Your task to perform on an android device: Show me productivity apps on the Play Store Image 0: 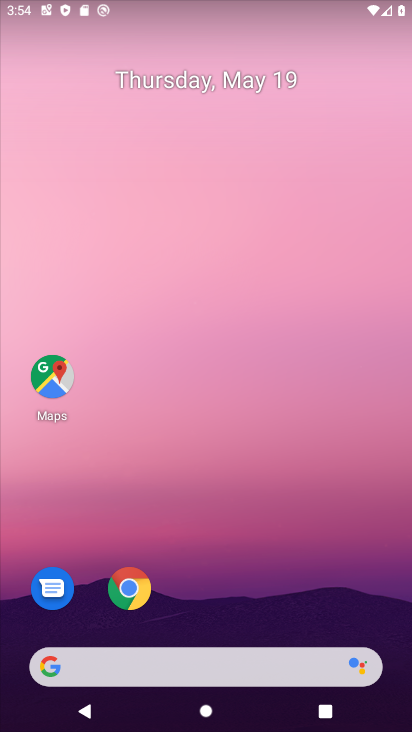
Step 0: drag from (176, 625) to (360, 24)
Your task to perform on an android device: Show me productivity apps on the Play Store Image 1: 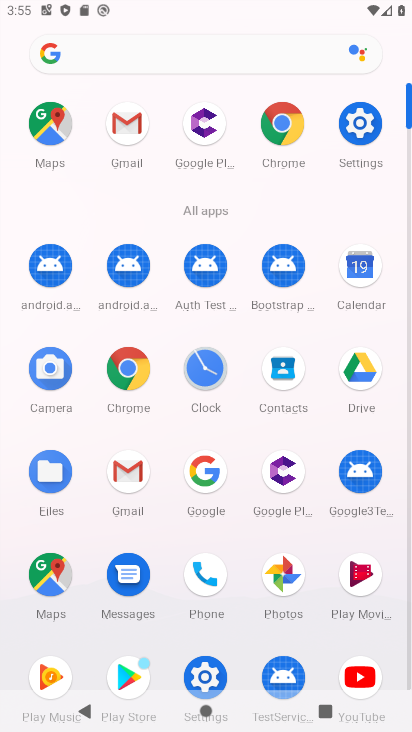
Step 1: click (114, 671)
Your task to perform on an android device: Show me productivity apps on the Play Store Image 2: 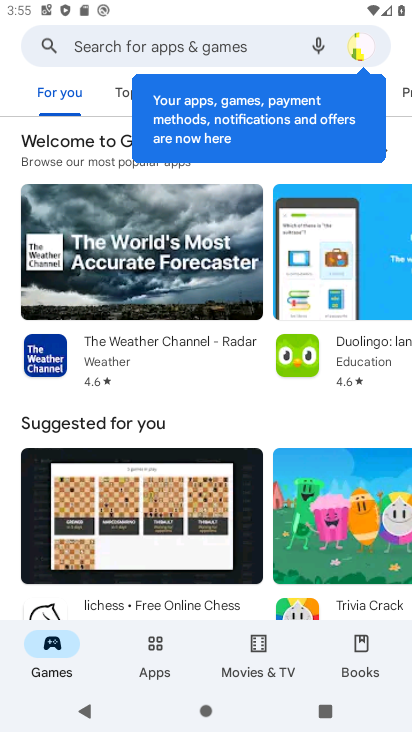
Step 2: click (161, 651)
Your task to perform on an android device: Show me productivity apps on the Play Store Image 3: 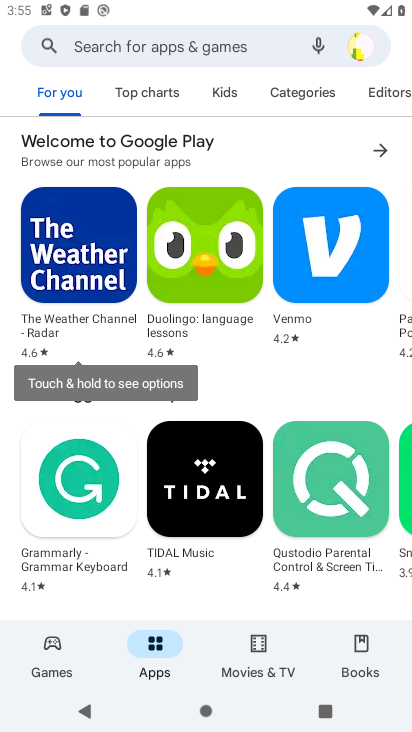
Step 3: click (301, 107)
Your task to perform on an android device: Show me productivity apps on the Play Store Image 4: 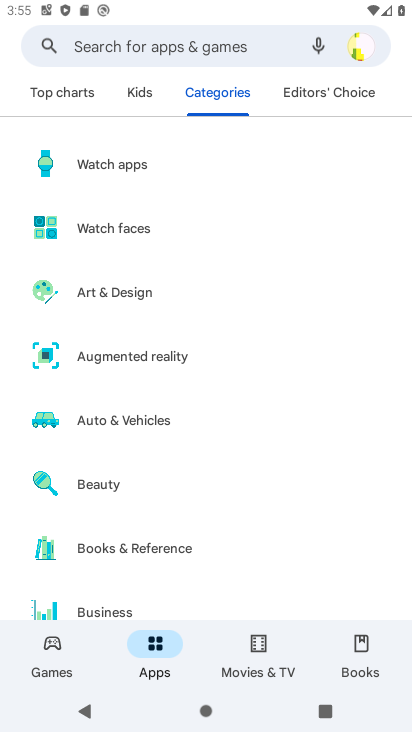
Step 4: drag from (109, 584) to (120, 237)
Your task to perform on an android device: Show me productivity apps on the Play Store Image 5: 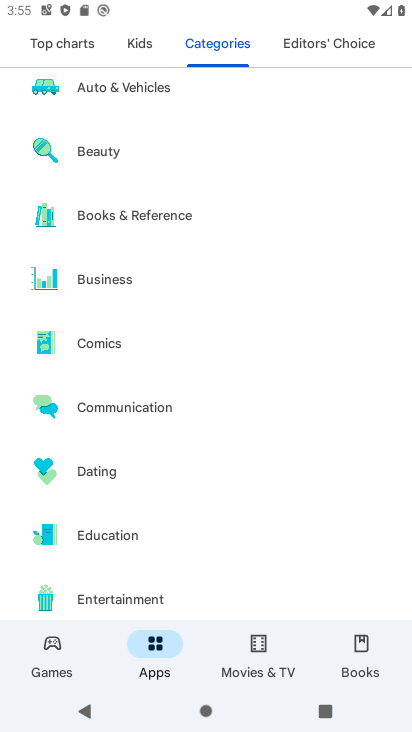
Step 5: drag from (116, 560) to (239, 125)
Your task to perform on an android device: Show me productivity apps on the Play Store Image 6: 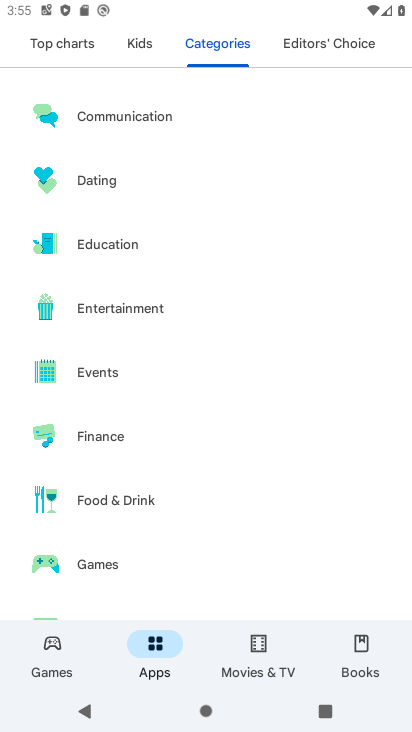
Step 6: drag from (123, 598) to (288, 110)
Your task to perform on an android device: Show me productivity apps on the Play Store Image 7: 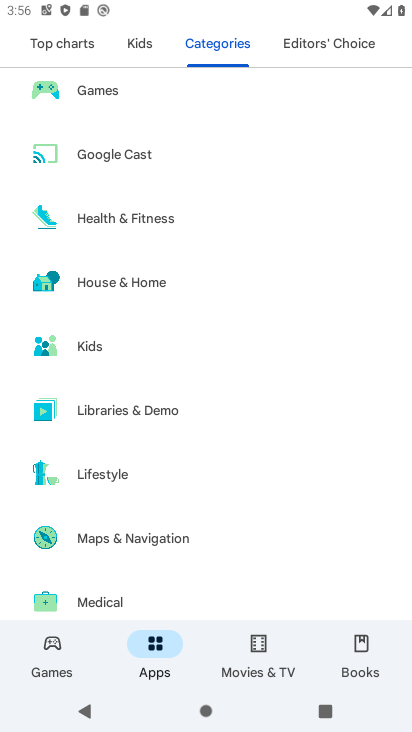
Step 7: drag from (90, 582) to (288, 3)
Your task to perform on an android device: Show me productivity apps on the Play Store Image 8: 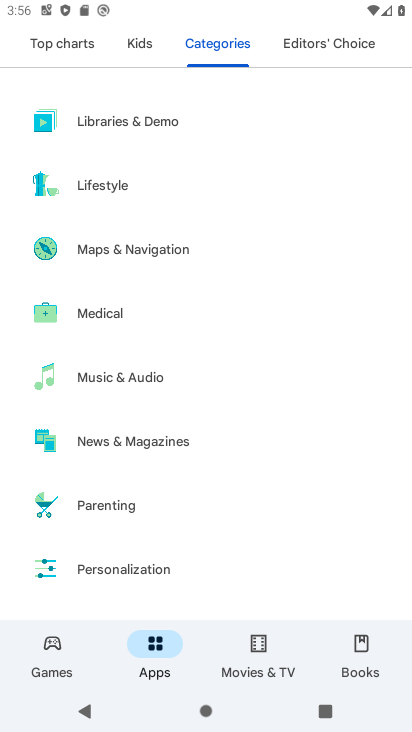
Step 8: drag from (113, 541) to (219, 184)
Your task to perform on an android device: Show me productivity apps on the Play Store Image 9: 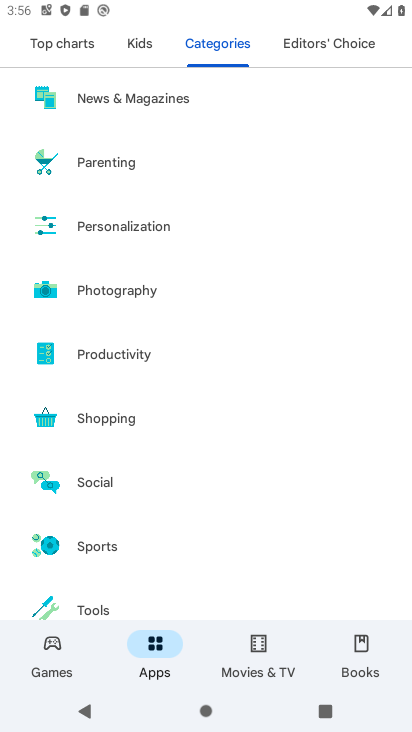
Step 9: click (132, 378)
Your task to perform on an android device: Show me productivity apps on the Play Store Image 10: 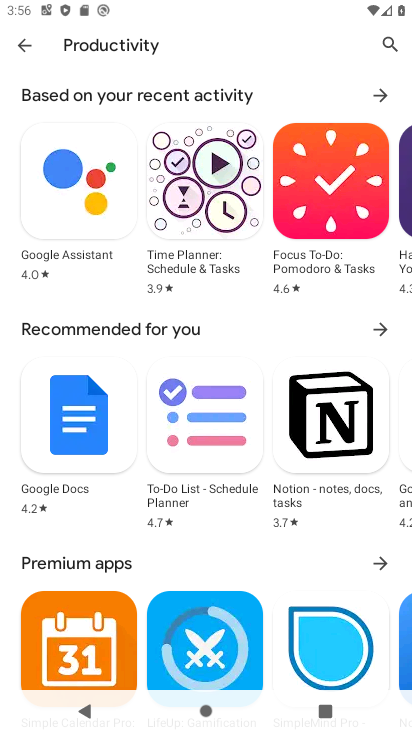
Step 10: task complete